Your task to perform on an android device: change alarm snooze length Image 0: 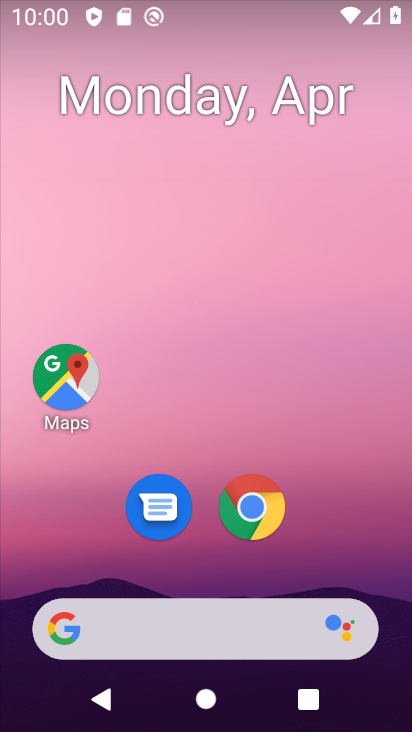
Step 0: drag from (354, 558) to (314, 77)
Your task to perform on an android device: change alarm snooze length Image 1: 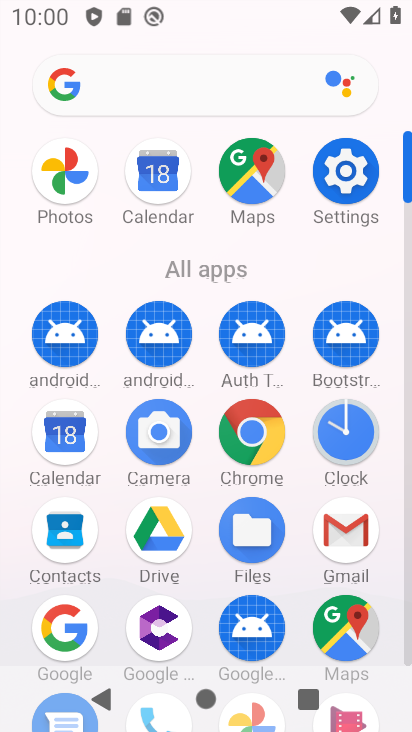
Step 1: click (330, 434)
Your task to perform on an android device: change alarm snooze length Image 2: 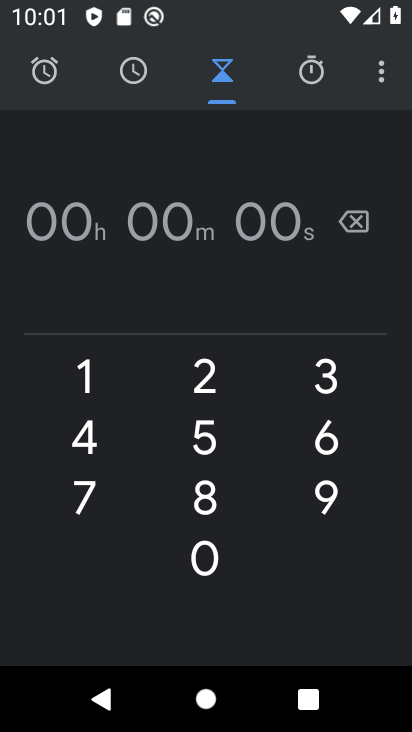
Step 2: click (382, 70)
Your task to perform on an android device: change alarm snooze length Image 3: 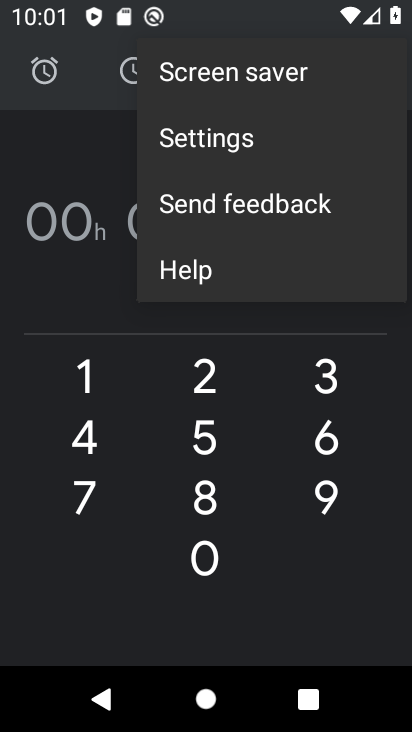
Step 3: click (263, 156)
Your task to perform on an android device: change alarm snooze length Image 4: 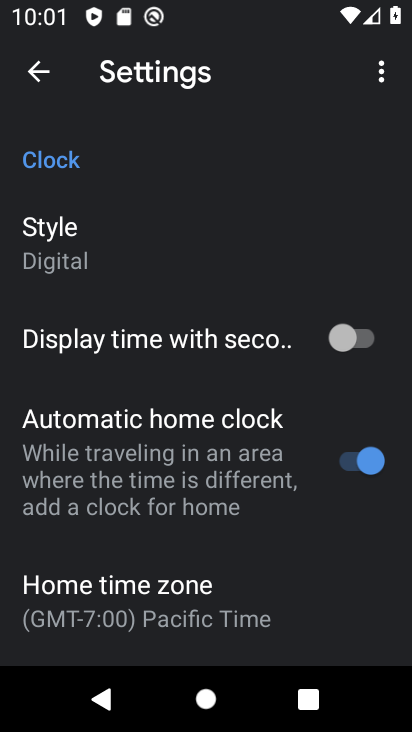
Step 4: drag from (244, 584) to (226, 258)
Your task to perform on an android device: change alarm snooze length Image 5: 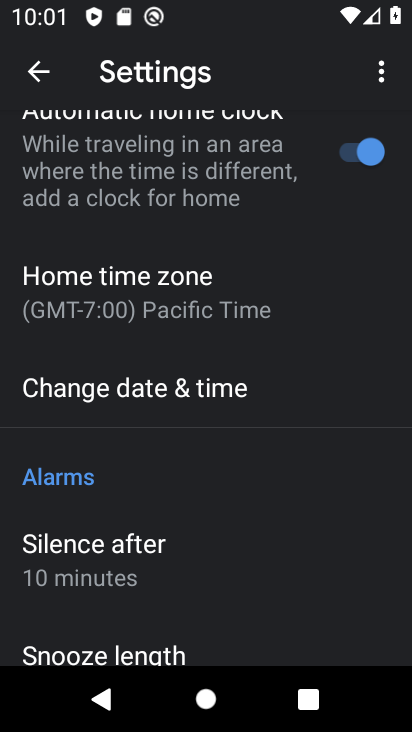
Step 5: drag from (224, 577) to (220, 338)
Your task to perform on an android device: change alarm snooze length Image 6: 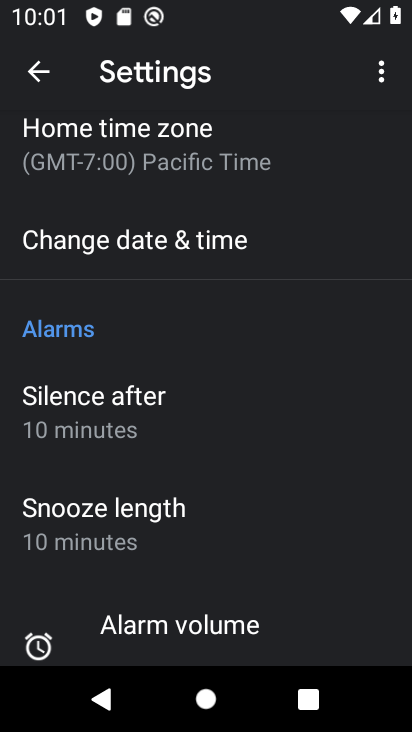
Step 6: click (187, 518)
Your task to perform on an android device: change alarm snooze length Image 7: 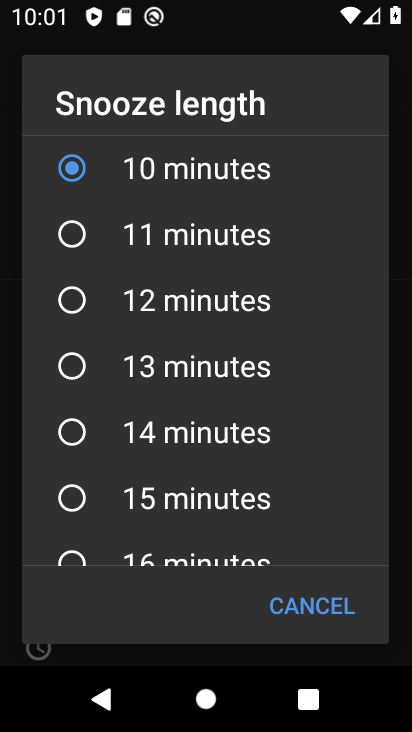
Step 7: click (187, 507)
Your task to perform on an android device: change alarm snooze length Image 8: 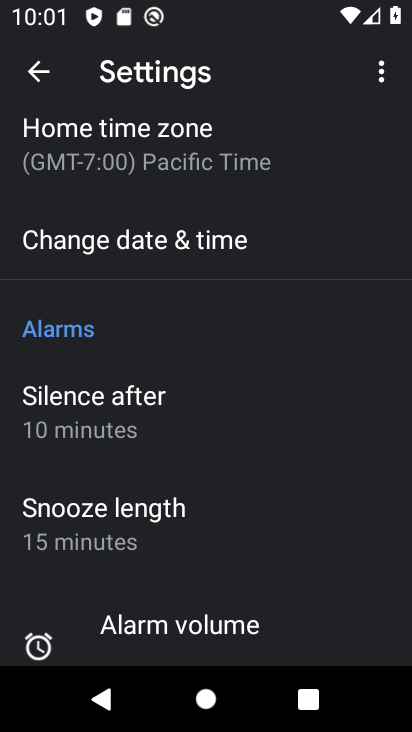
Step 8: task complete